Your task to perform on an android device: check data usage Image 0: 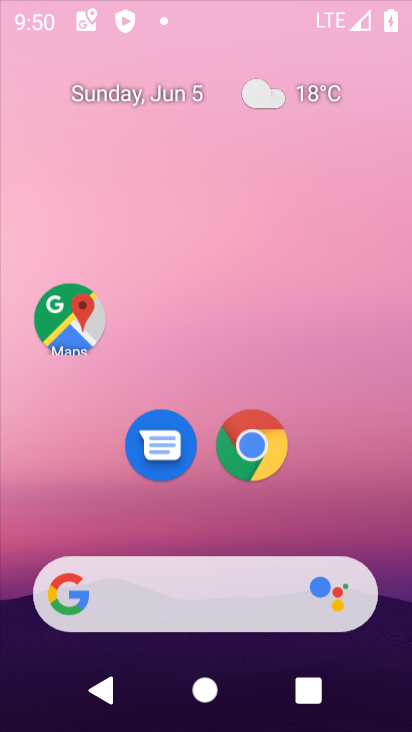
Step 0: press home button
Your task to perform on an android device: check data usage Image 1: 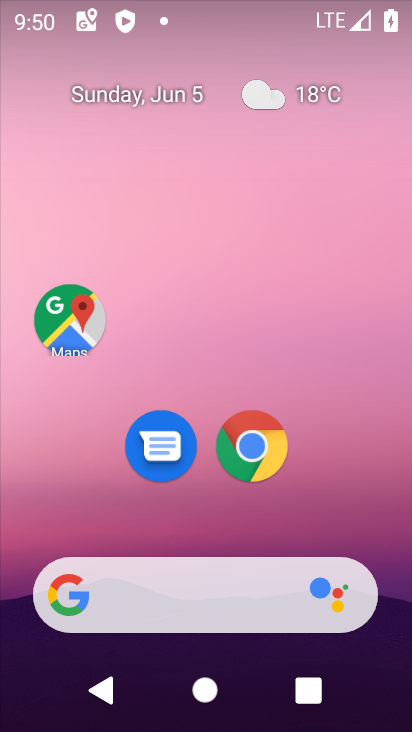
Step 1: press home button
Your task to perform on an android device: check data usage Image 2: 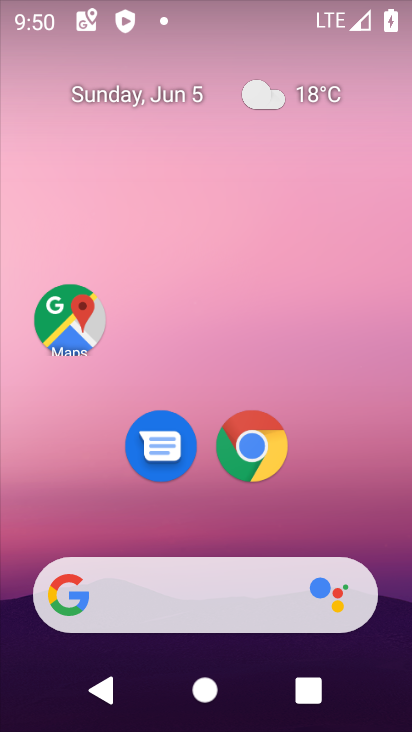
Step 2: drag from (198, 508) to (201, 27)
Your task to perform on an android device: check data usage Image 3: 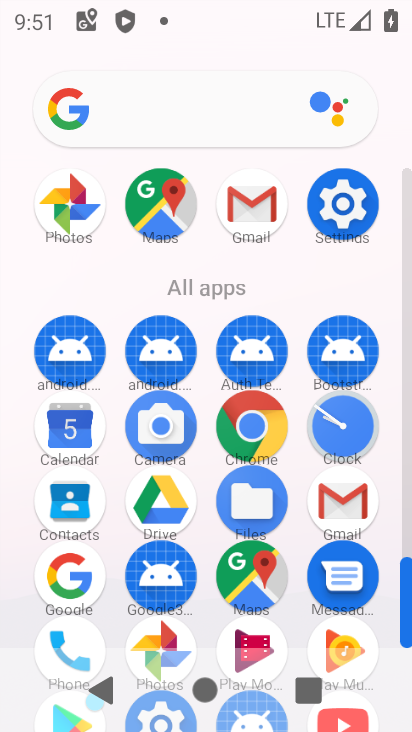
Step 3: click (334, 202)
Your task to perform on an android device: check data usage Image 4: 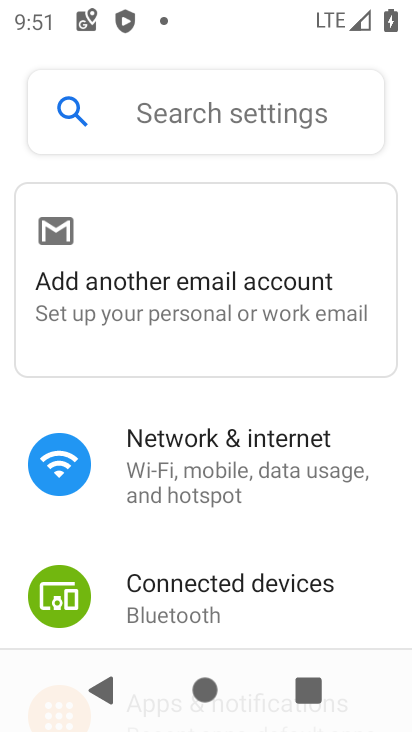
Step 4: click (203, 484)
Your task to perform on an android device: check data usage Image 5: 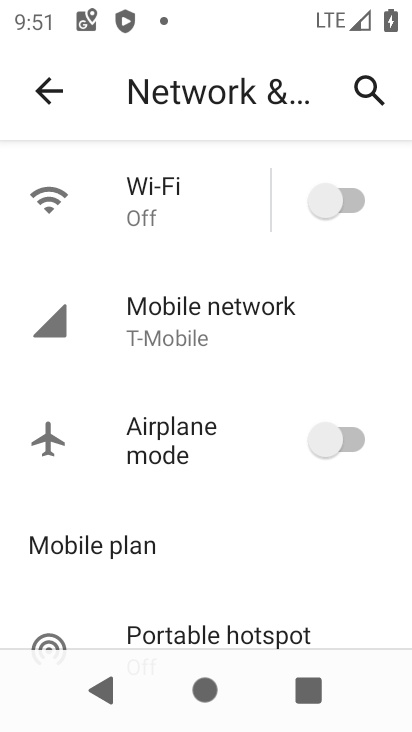
Step 5: click (162, 293)
Your task to perform on an android device: check data usage Image 6: 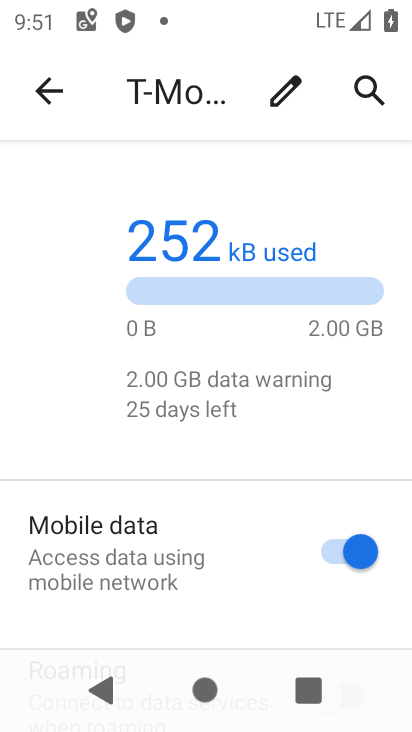
Step 6: task complete